Your task to perform on an android device: Go to display settings Image 0: 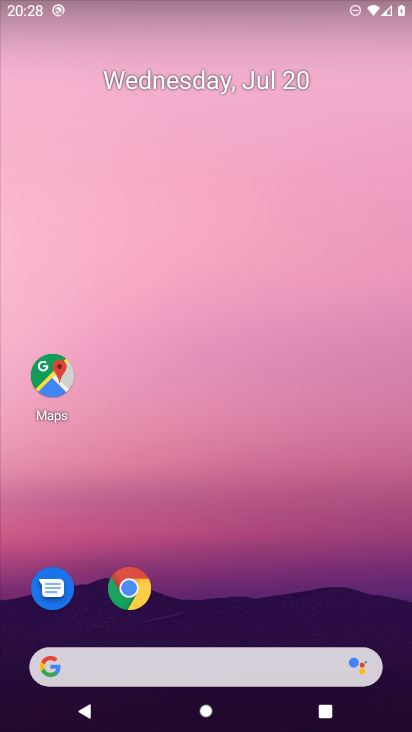
Step 0: drag from (64, 523) to (226, 35)
Your task to perform on an android device: Go to display settings Image 1: 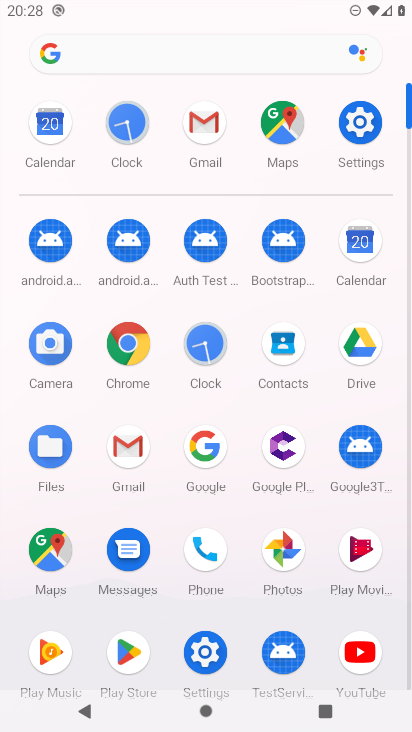
Step 1: click (203, 653)
Your task to perform on an android device: Go to display settings Image 2: 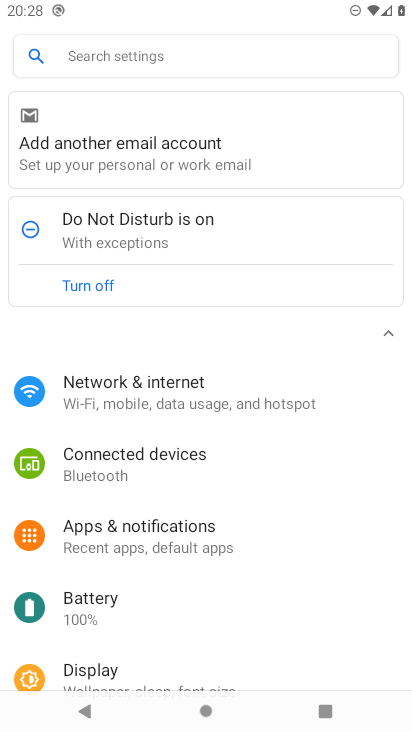
Step 2: click (98, 670)
Your task to perform on an android device: Go to display settings Image 3: 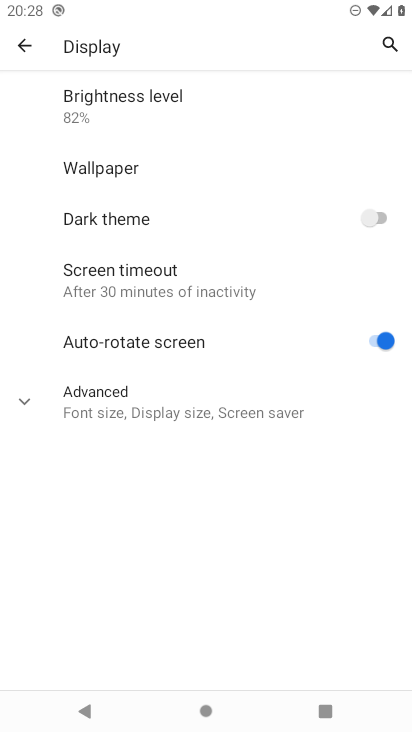
Step 3: task complete